Your task to perform on an android device: Open my contact list Image 0: 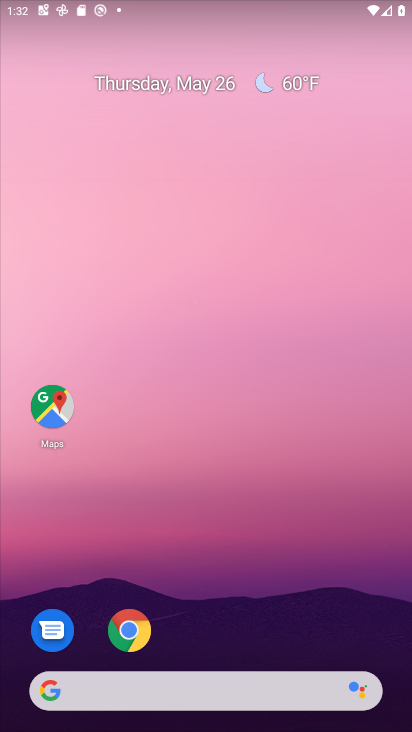
Step 0: drag from (321, 482) to (369, 23)
Your task to perform on an android device: Open my contact list Image 1: 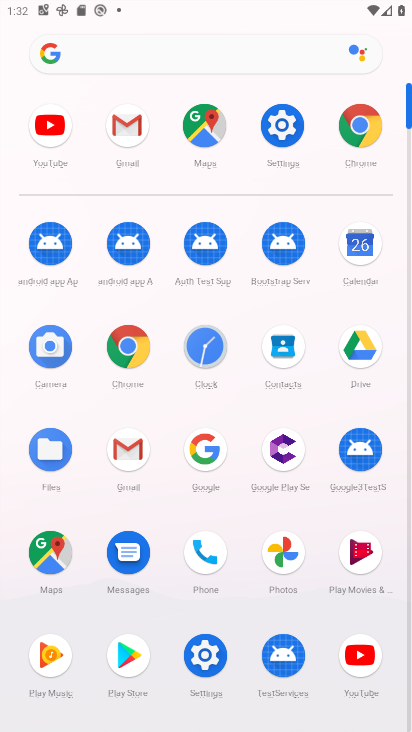
Step 1: click (205, 559)
Your task to perform on an android device: Open my contact list Image 2: 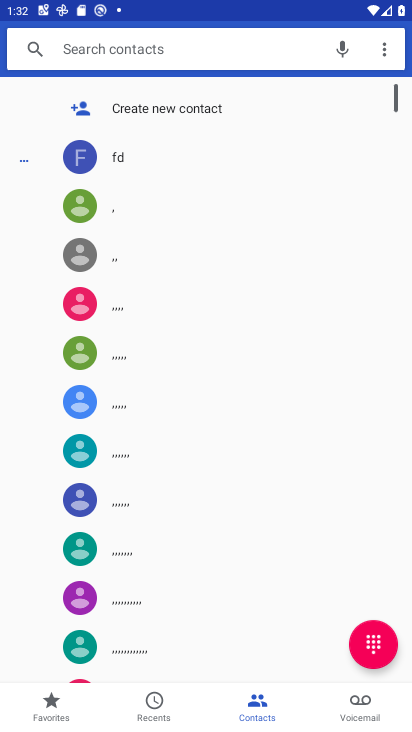
Step 2: task complete